Your task to perform on an android device: turn off priority inbox in the gmail app Image 0: 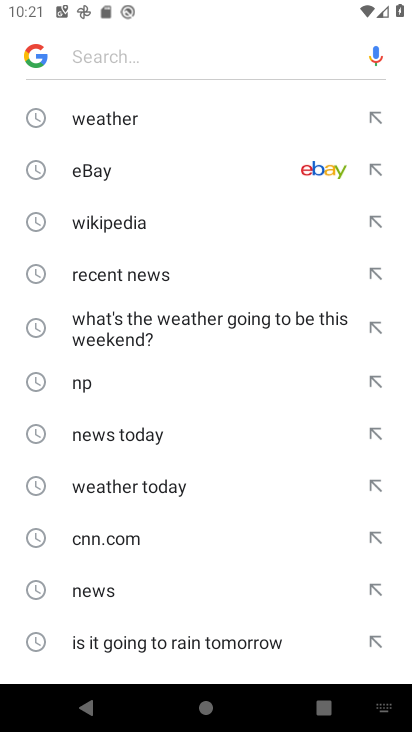
Step 0: press home button
Your task to perform on an android device: turn off priority inbox in the gmail app Image 1: 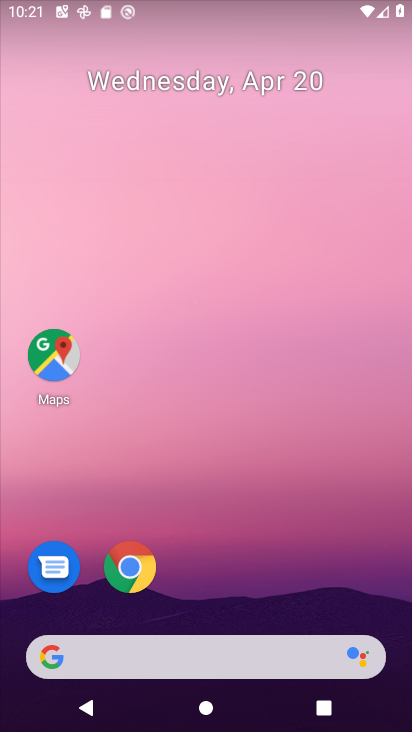
Step 1: drag from (318, 551) to (336, 118)
Your task to perform on an android device: turn off priority inbox in the gmail app Image 2: 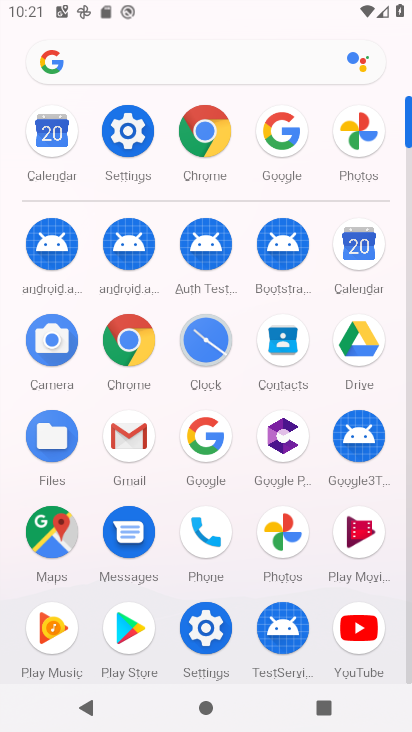
Step 2: click (130, 441)
Your task to perform on an android device: turn off priority inbox in the gmail app Image 3: 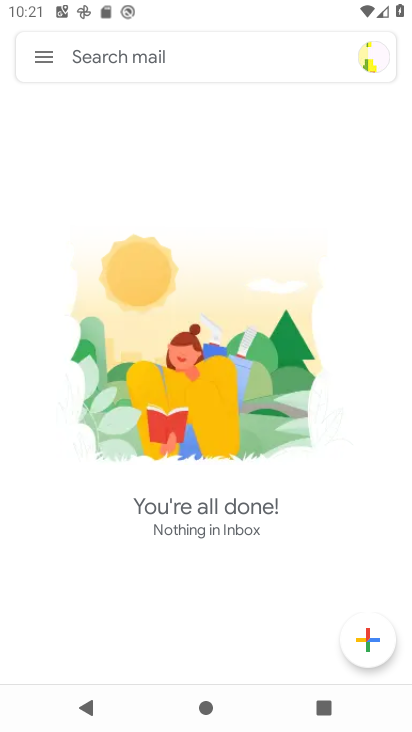
Step 3: click (41, 61)
Your task to perform on an android device: turn off priority inbox in the gmail app Image 4: 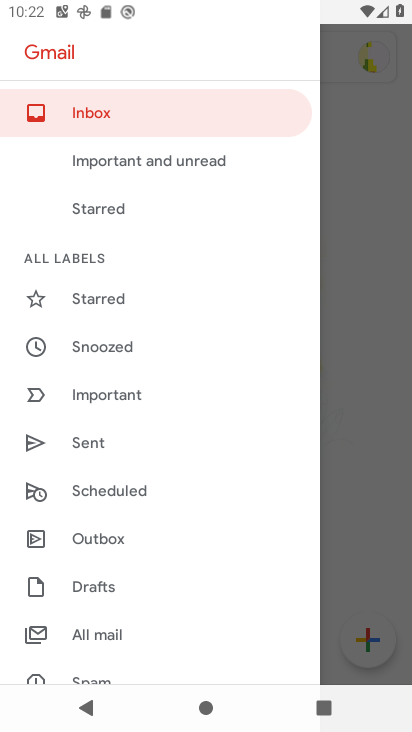
Step 4: drag from (224, 590) to (250, 353)
Your task to perform on an android device: turn off priority inbox in the gmail app Image 5: 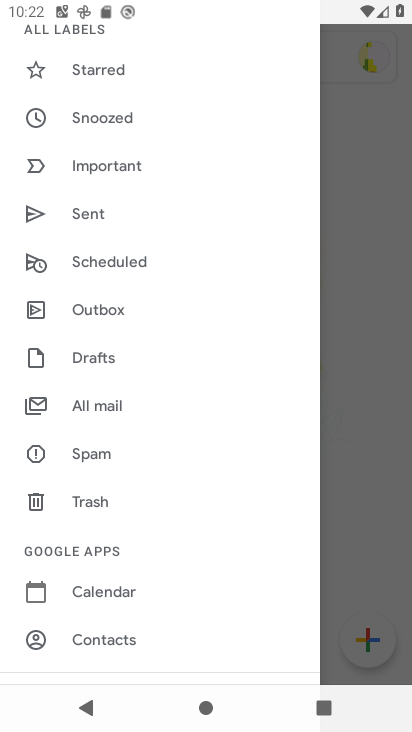
Step 5: drag from (214, 558) to (251, 317)
Your task to perform on an android device: turn off priority inbox in the gmail app Image 6: 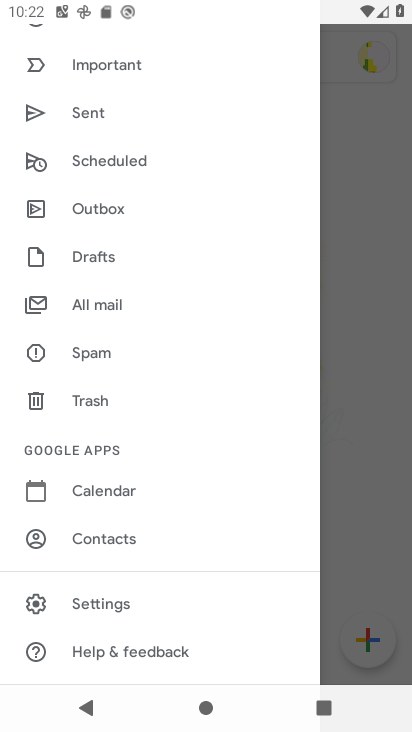
Step 6: drag from (238, 624) to (285, 383)
Your task to perform on an android device: turn off priority inbox in the gmail app Image 7: 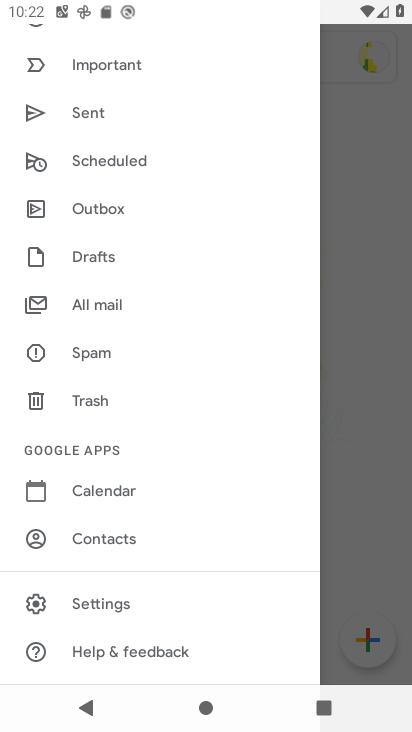
Step 7: click (113, 609)
Your task to perform on an android device: turn off priority inbox in the gmail app Image 8: 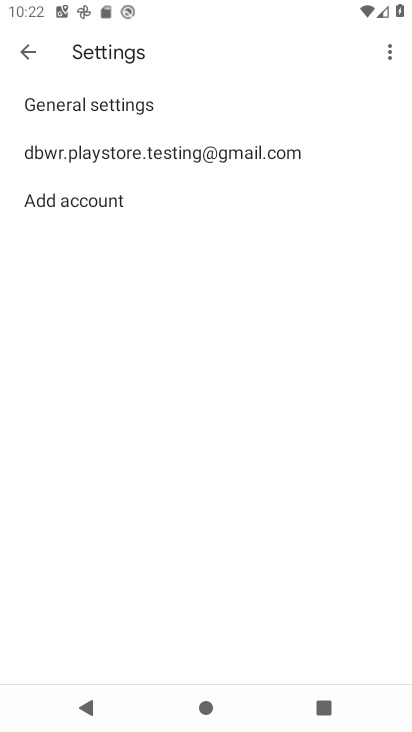
Step 8: click (226, 152)
Your task to perform on an android device: turn off priority inbox in the gmail app Image 9: 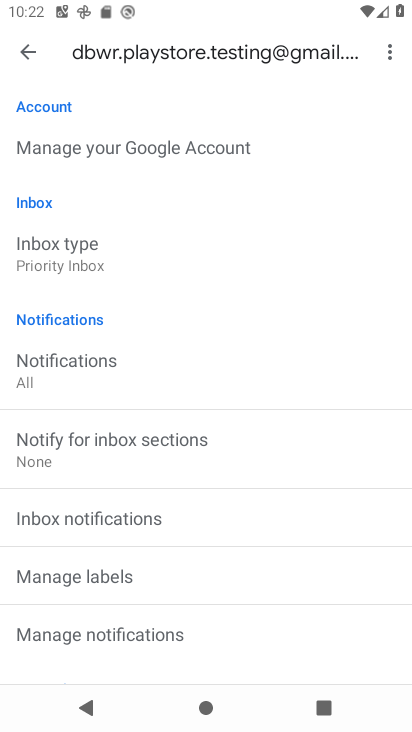
Step 9: drag from (288, 504) to (340, 353)
Your task to perform on an android device: turn off priority inbox in the gmail app Image 10: 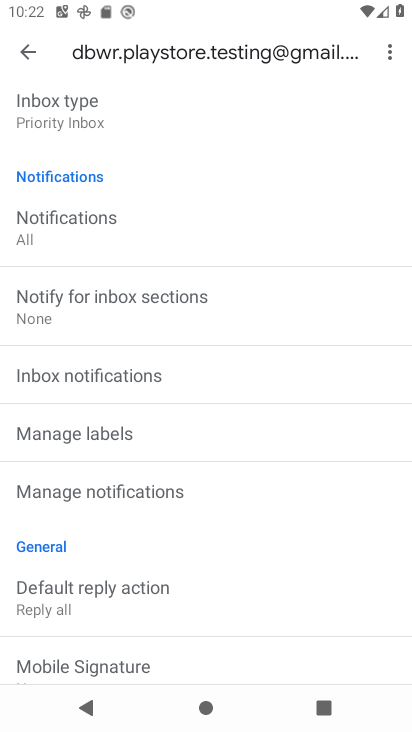
Step 10: drag from (290, 589) to (323, 421)
Your task to perform on an android device: turn off priority inbox in the gmail app Image 11: 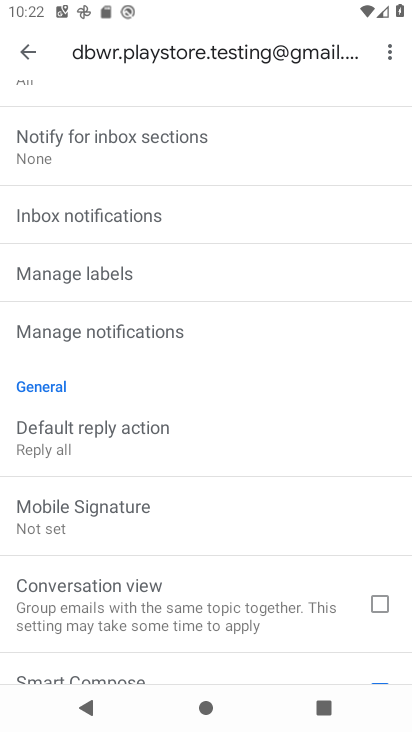
Step 11: drag from (308, 578) to (320, 428)
Your task to perform on an android device: turn off priority inbox in the gmail app Image 12: 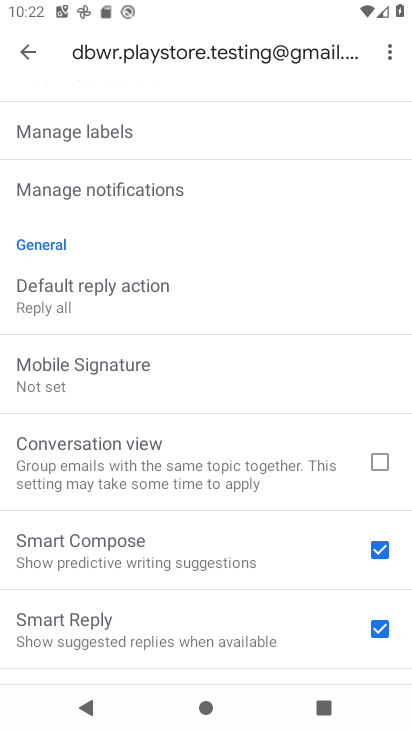
Step 12: drag from (310, 636) to (335, 384)
Your task to perform on an android device: turn off priority inbox in the gmail app Image 13: 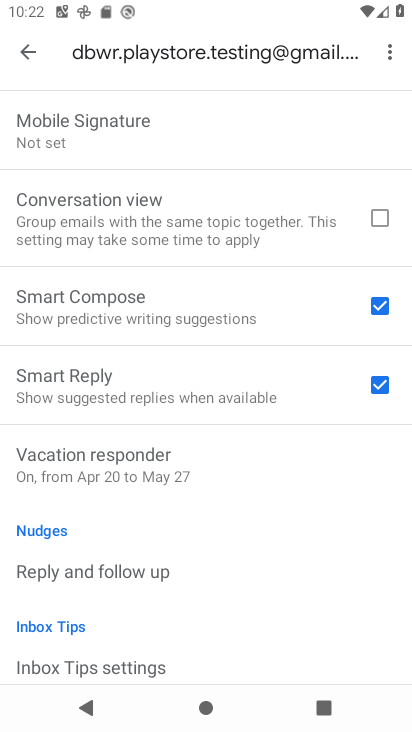
Step 13: drag from (303, 606) to (315, 448)
Your task to perform on an android device: turn off priority inbox in the gmail app Image 14: 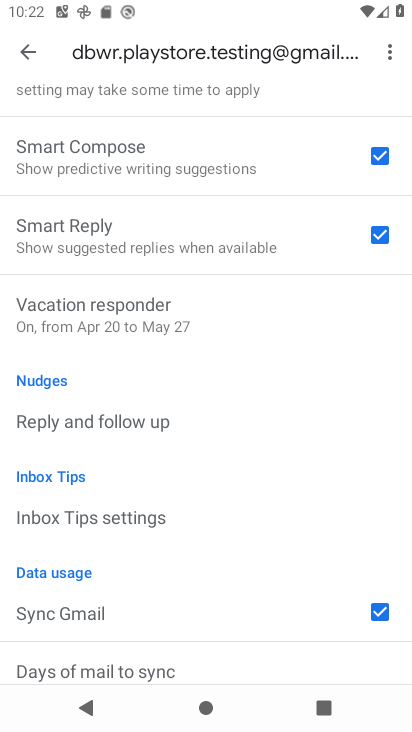
Step 14: drag from (243, 652) to (273, 457)
Your task to perform on an android device: turn off priority inbox in the gmail app Image 15: 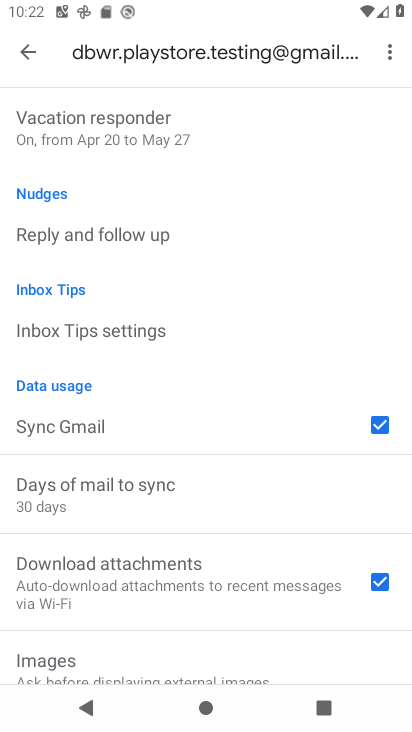
Step 15: drag from (272, 636) to (301, 424)
Your task to perform on an android device: turn off priority inbox in the gmail app Image 16: 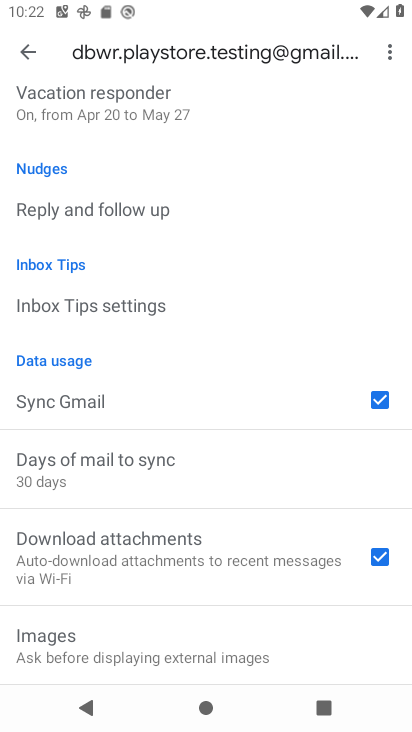
Step 16: drag from (274, 270) to (282, 436)
Your task to perform on an android device: turn off priority inbox in the gmail app Image 17: 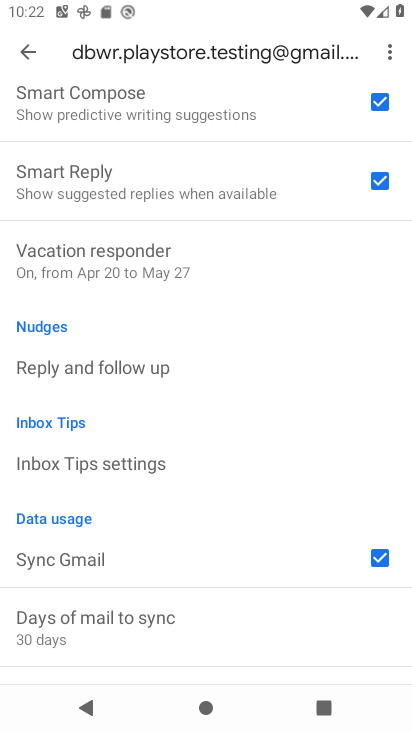
Step 17: drag from (283, 260) to (275, 473)
Your task to perform on an android device: turn off priority inbox in the gmail app Image 18: 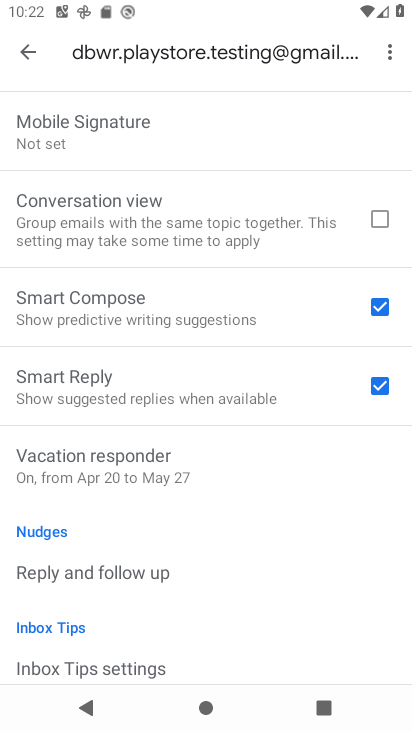
Step 18: drag from (297, 366) to (290, 522)
Your task to perform on an android device: turn off priority inbox in the gmail app Image 19: 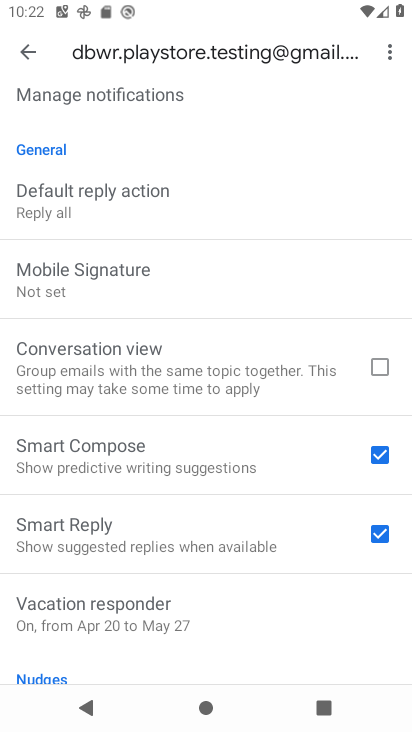
Step 19: drag from (298, 259) to (315, 499)
Your task to perform on an android device: turn off priority inbox in the gmail app Image 20: 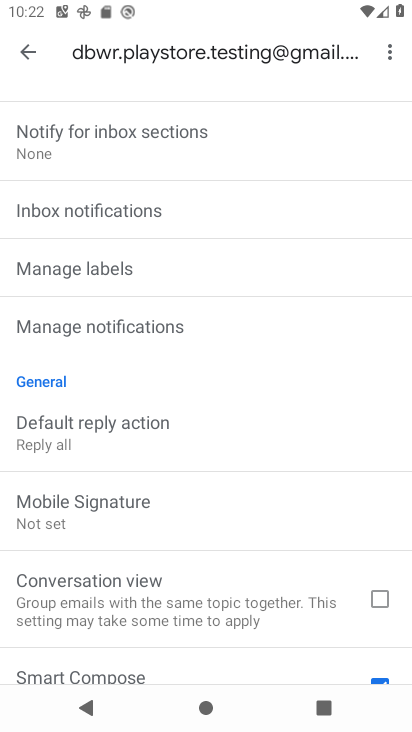
Step 20: drag from (302, 246) to (282, 481)
Your task to perform on an android device: turn off priority inbox in the gmail app Image 21: 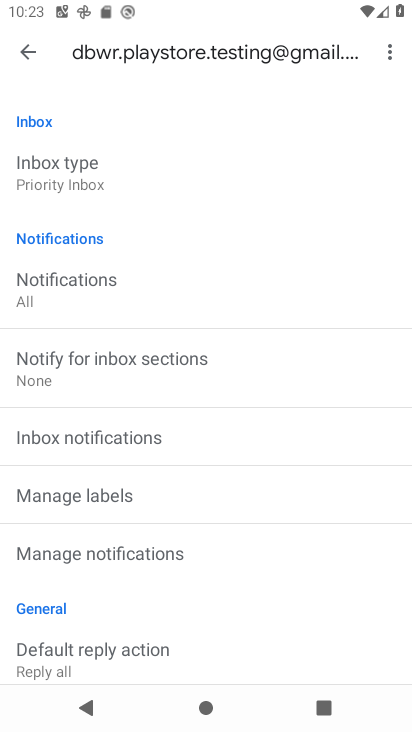
Step 21: click (70, 158)
Your task to perform on an android device: turn off priority inbox in the gmail app Image 22: 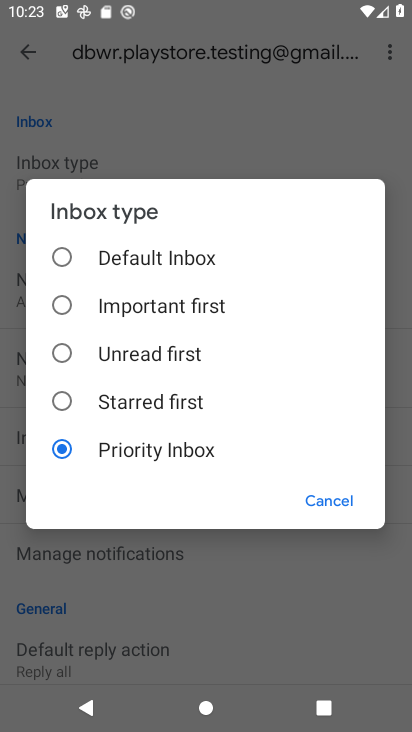
Step 22: click (180, 295)
Your task to perform on an android device: turn off priority inbox in the gmail app Image 23: 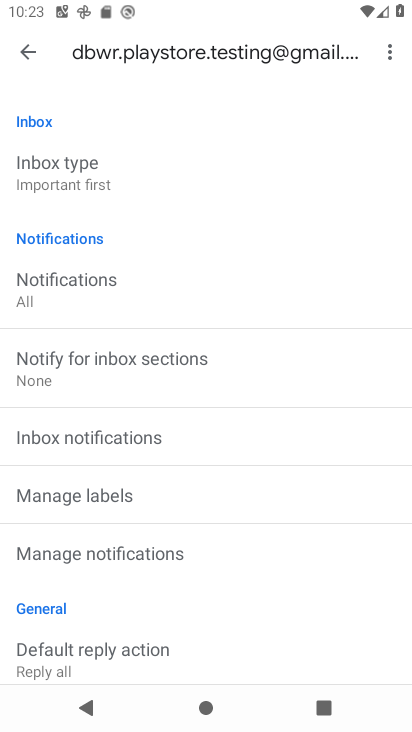
Step 23: task complete